Your task to perform on an android device: Open maps Image 0: 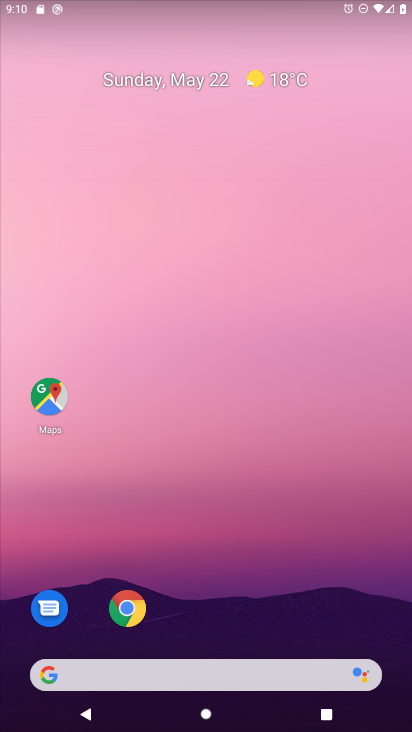
Step 0: drag from (217, 724) to (216, 199)
Your task to perform on an android device: Open maps Image 1: 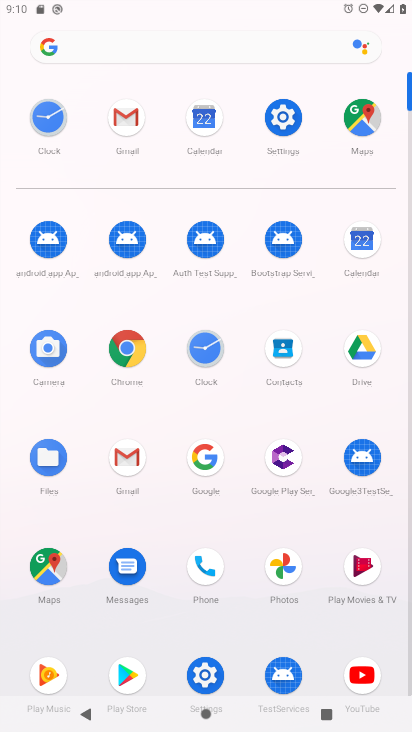
Step 1: click (45, 565)
Your task to perform on an android device: Open maps Image 2: 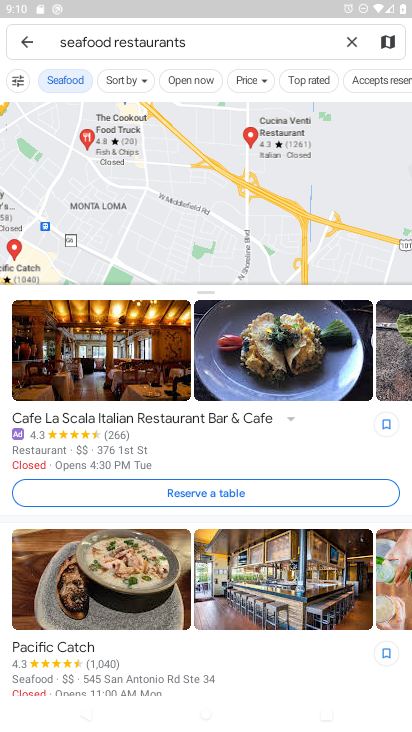
Step 2: task complete